Your task to perform on an android device: toggle notifications settings in the gmail app Image 0: 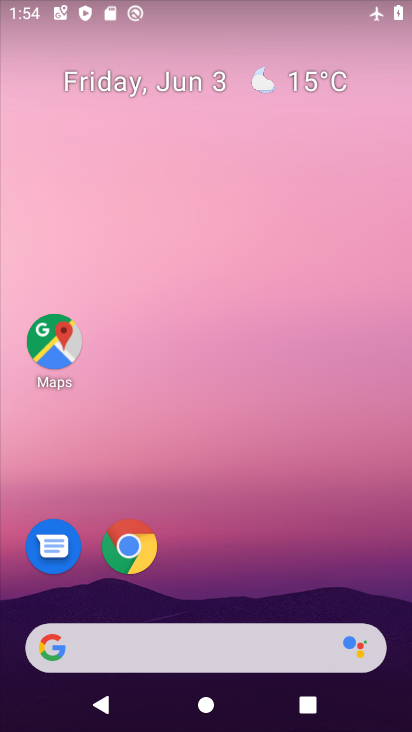
Step 0: drag from (302, 541) to (409, 58)
Your task to perform on an android device: toggle notifications settings in the gmail app Image 1: 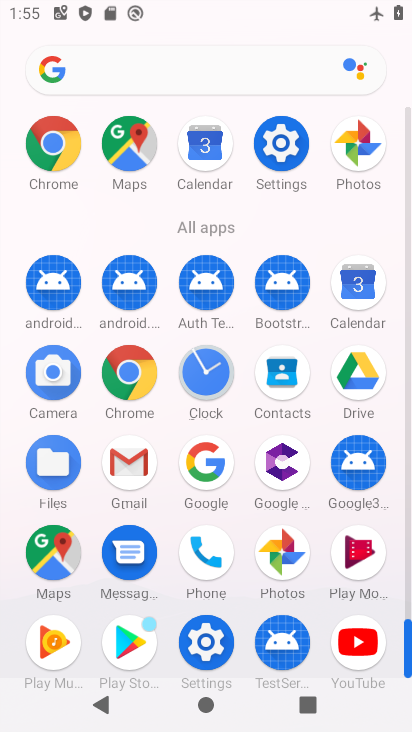
Step 1: click (136, 465)
Your task to perform on an android device: toggle notifications settings in the gmail app Image 2: 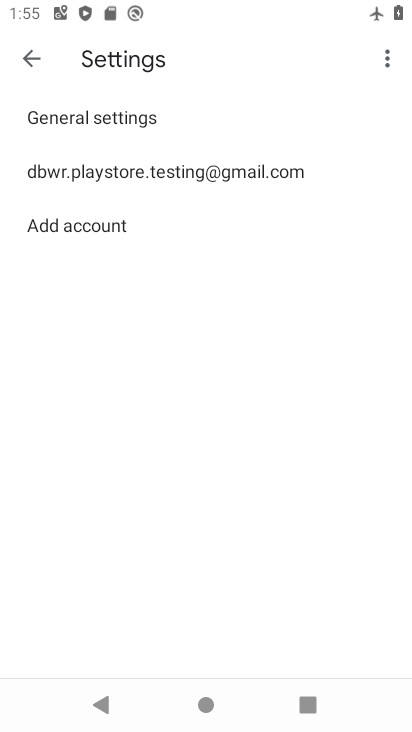
Step 2: click (18, 70)
Your task to perform on an android device: toggle notifications settings in the gmail app Image 3: 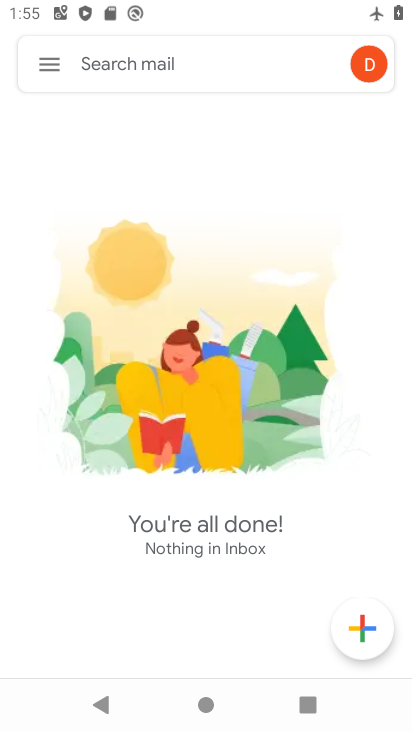
Step 3: click (25, 60)
Your task to perform on an android device: toggle notifications settings in the gmail app Image 4: 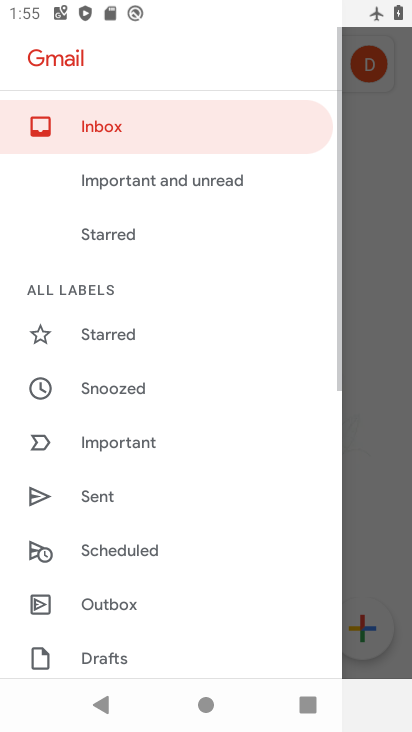
Step 4: drag from (162, 614) to (118, 141)
Your task to perform on an android device: toggle notifications settings in the gmail app Image 5: 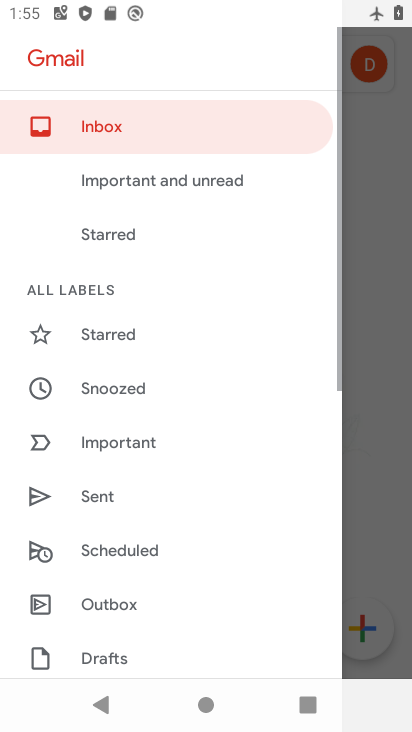
Step 5: drag from (145, 520) to (236, 251)
Your task to perform on an android device: toggle notifications settings in the gmail app Image 6: 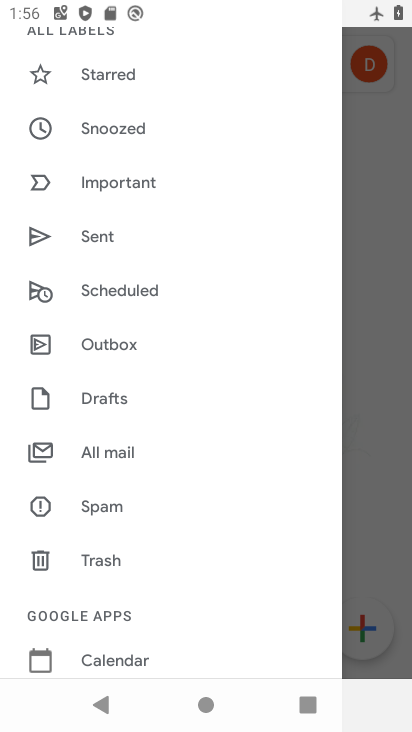
Step 6: drag from (151, 601) to (234, 155)
Your task to perform on an android device: toggle notifications settings in the gmail app Image 7: 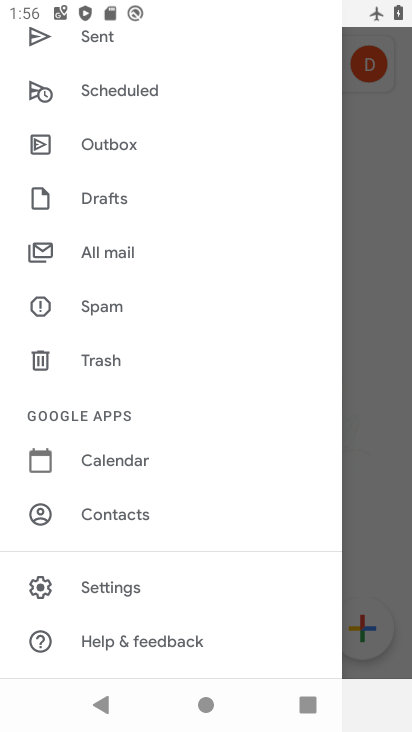
Step 7: click (105, 603)
Your task to perform on an android device: toggle notifications settings in the gmail app Image 8: 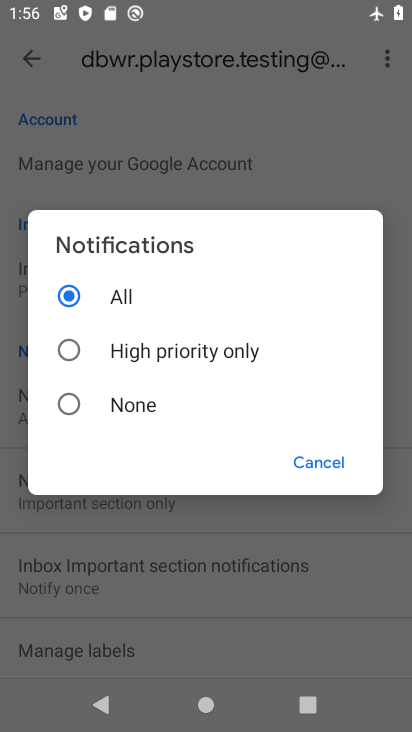
Step 8: click (108, 340)
Your task to perform on an android device: toggle notifications settings in the gmail app Image 9: 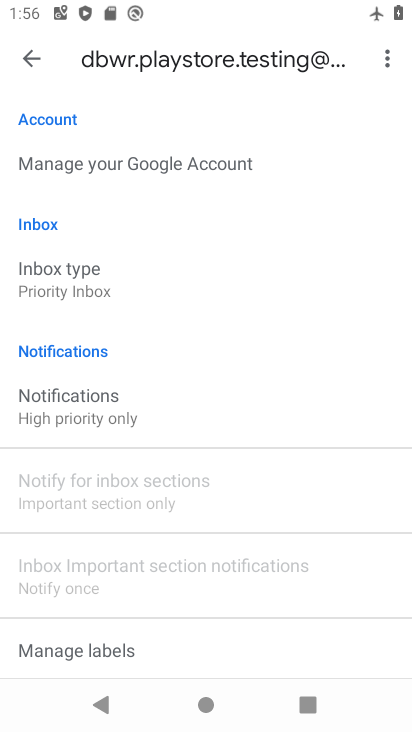
Step 9: task complete